Your task to perform on an android device: toggle wifi Image 0: 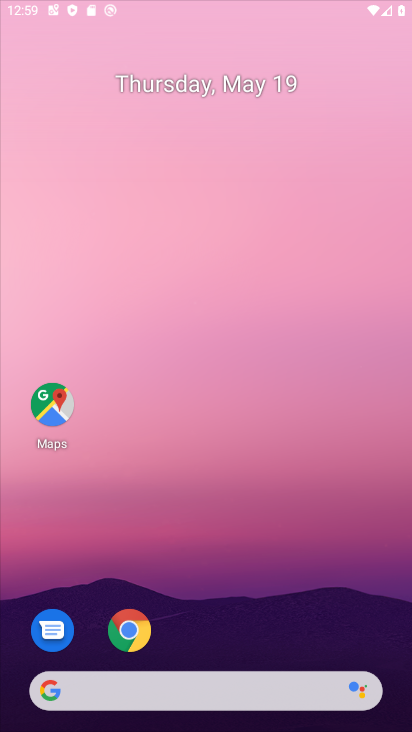
Step 0: drag from (211, 663) to (193, 1)
Your task to perform on an android device: toggle wifi Image 1: 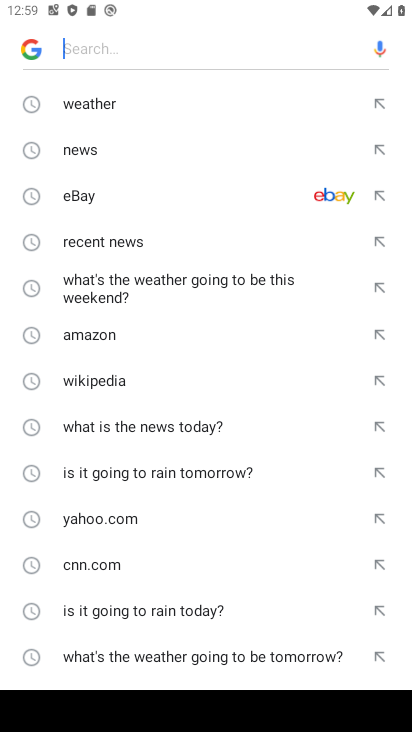
Step 1: press home button
Your task to perform on an android device: toggle wifi Image 2: 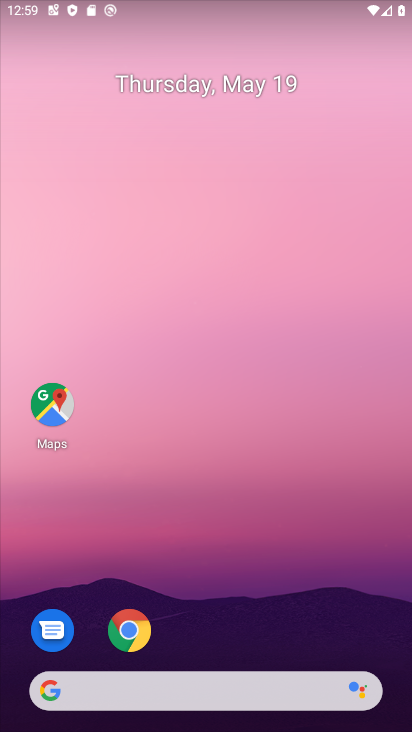
Step 2: drag from (219, 658) to (228, 89)
Your task to perform on an android device: toggle wifi Image 3: 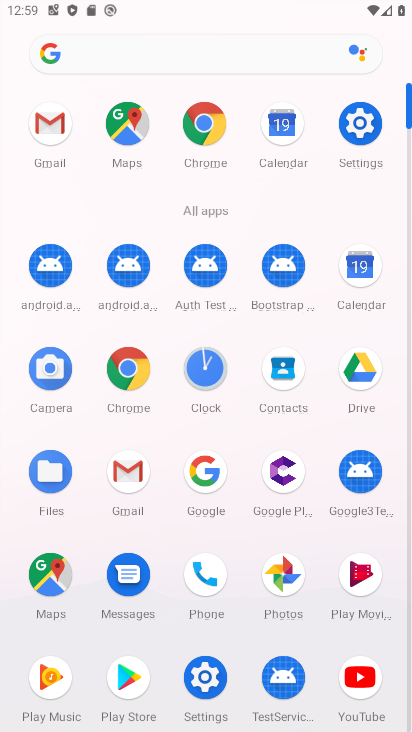
Step 3: click (353, 144)
Your task to perform on an android device: toggle wifi Image 4: 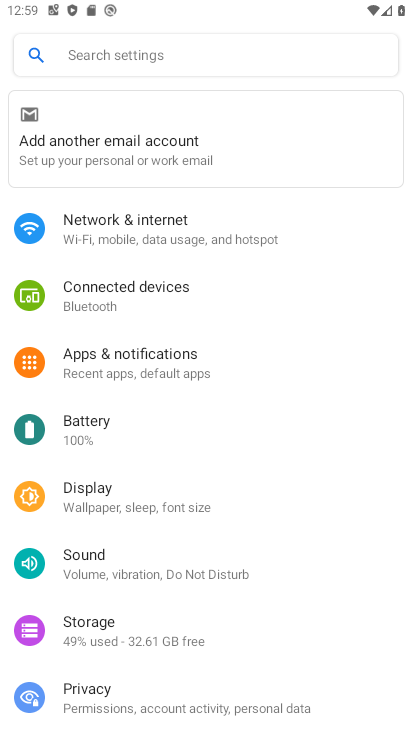
Step 4: click (121, 211)
Your task to perform on an android device: toggle wifi Image 5: 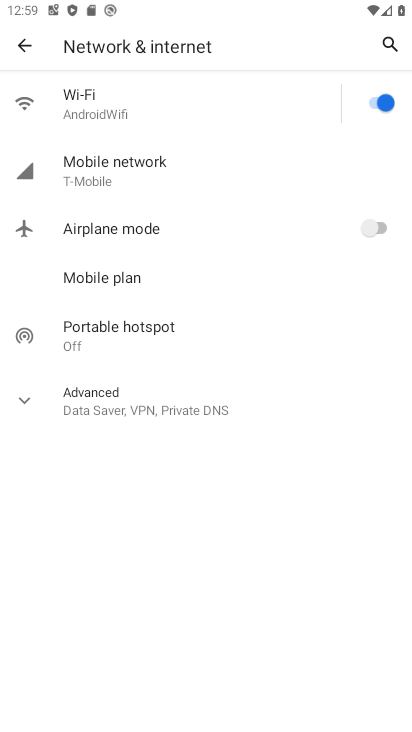
Step 5: click (137, 118)
Your task to perform on an android device: toggle wifi Image 6: 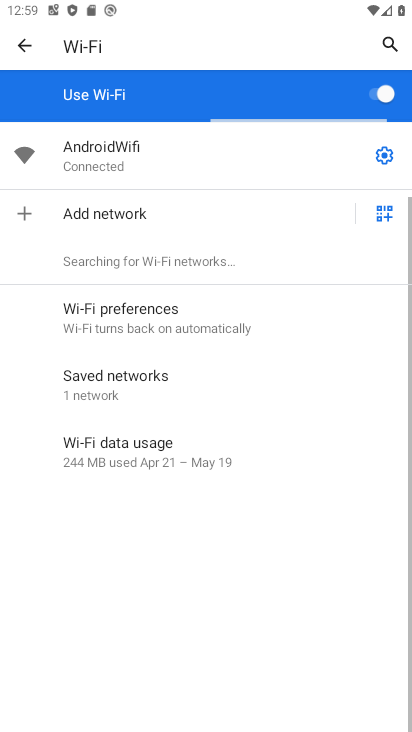
Step 6: click (373, 96)
Your task to perform on an android device: toggle wifi Image 7: 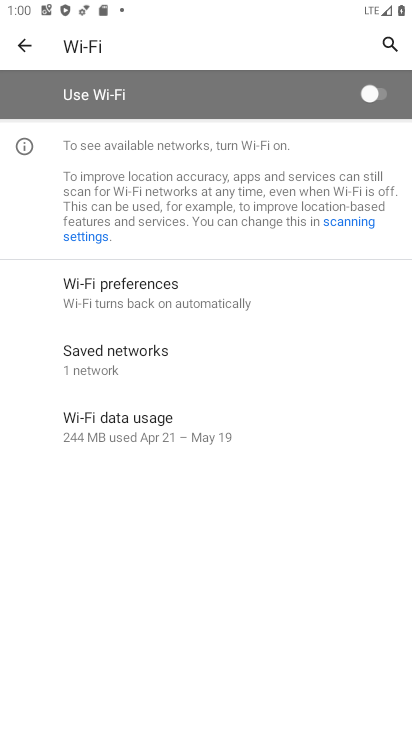
Step 7: task complete